Your task to perform on an android device: change timer sound Image 0: 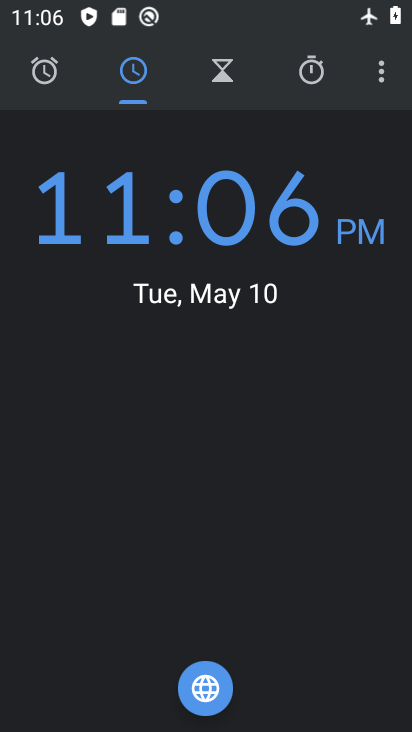
Step 0: click (387, 72)
Your task to perform on an android device: change timer sound Image 1: 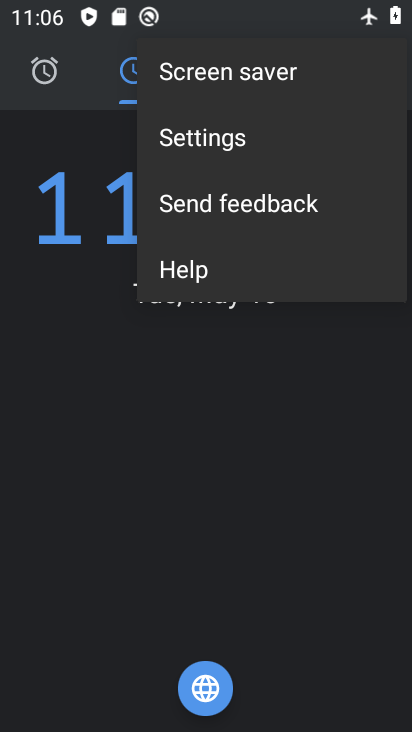
Step 1: click (209, 131)
Your task to perform on an android device: change timer sound Image 2: 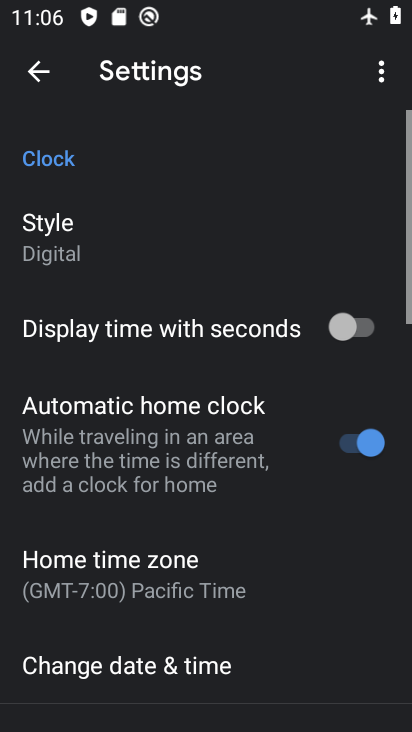
Step 2: drag from (123, 695) to (148, 314)
Your task to perform on an android device: change timer sound Image 3: 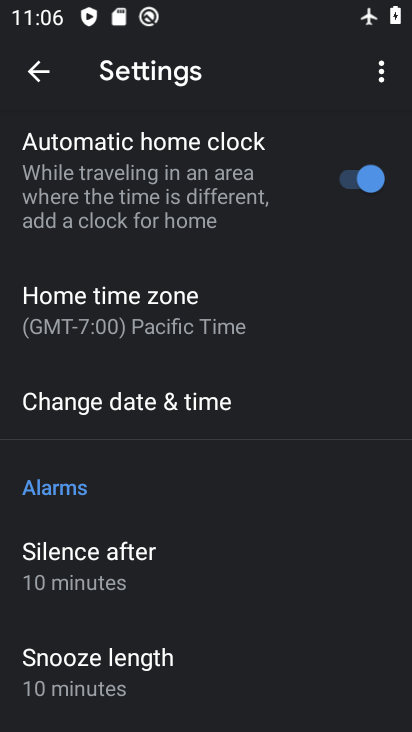
Step 3: drag from (188, 556) to (190, 383)
Your task to perform on an android device: change timer sound Image 4: 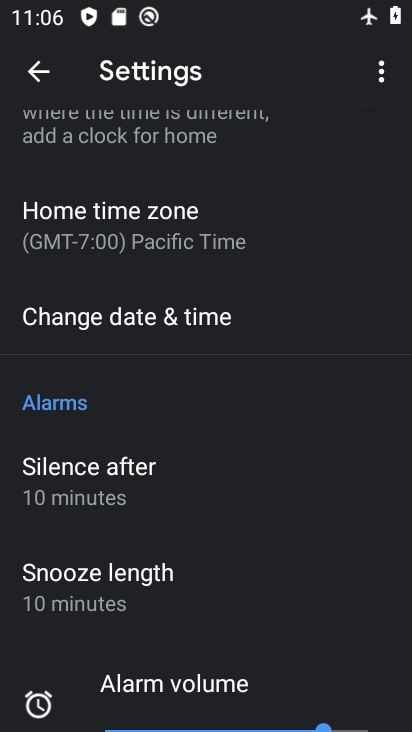
Step 4: drag from (170, 586) to (170, 351)
Your task to perform on an android device: change timer sound Image 5: 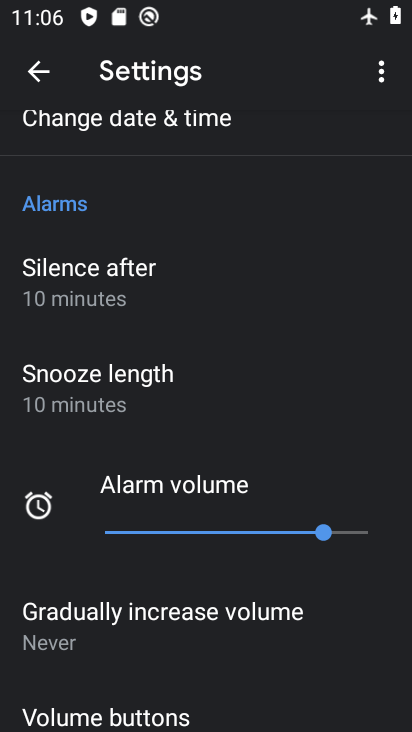
Step 5: drag from (144, 667) to (138, 328)
Your task to perform on an android device: change timer sound Image 6: 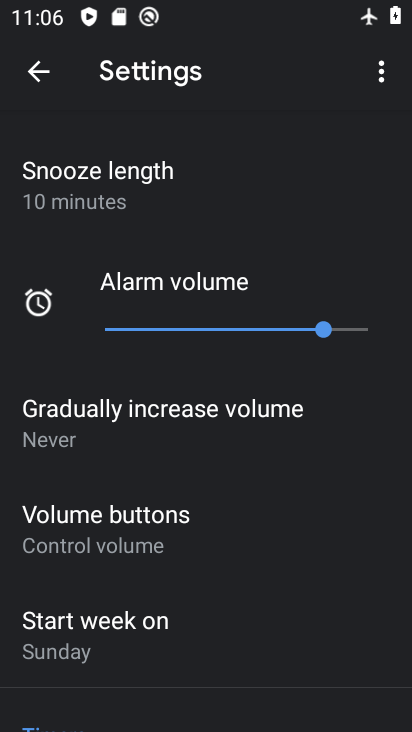
Step 6: drag from (247, 637) to (232, 400)
Your task to perform on an android device: change timer sound Image 7: 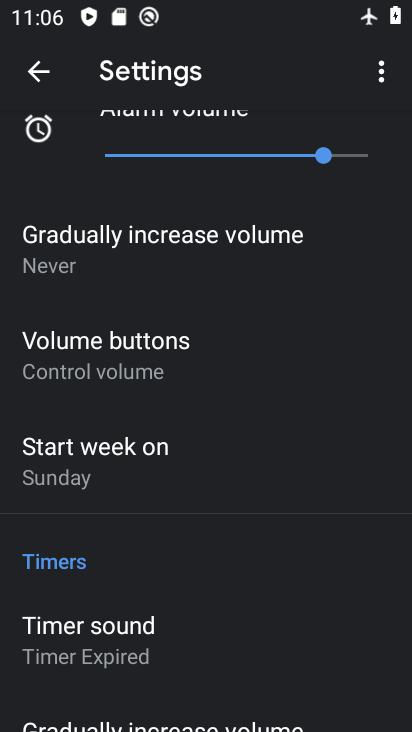
Step 7: click (104, 651)
Your task to perform on an android device: change timer sound Image 8: 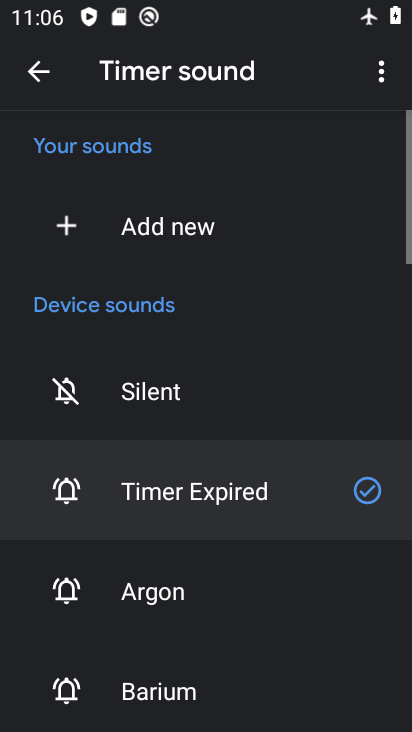
Step 8: click (148, 601)
Your task to perform on an android device: change timer sound Image 9: 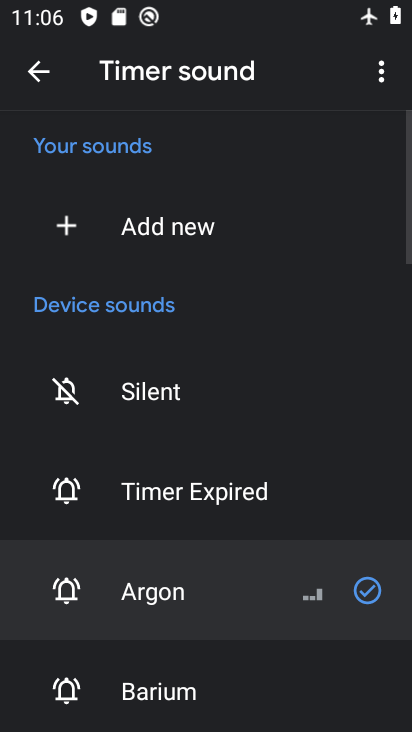
Step 9: task complete